Your task to perform on an android device: Open Reddit.com Image 0: 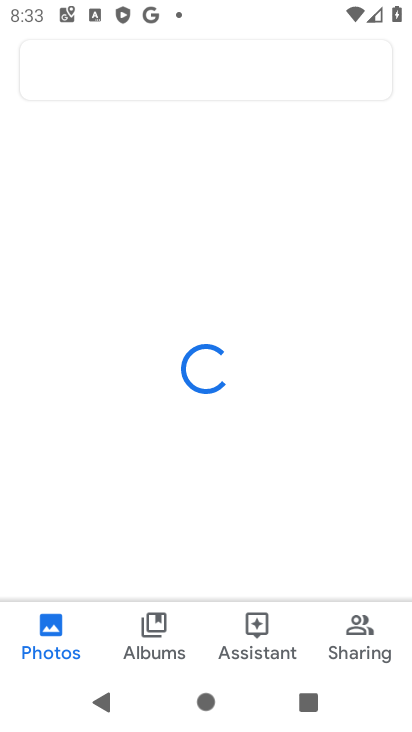
Step 0: press home button
Your task to perform on an android device: Open Reddit.com Image 1: 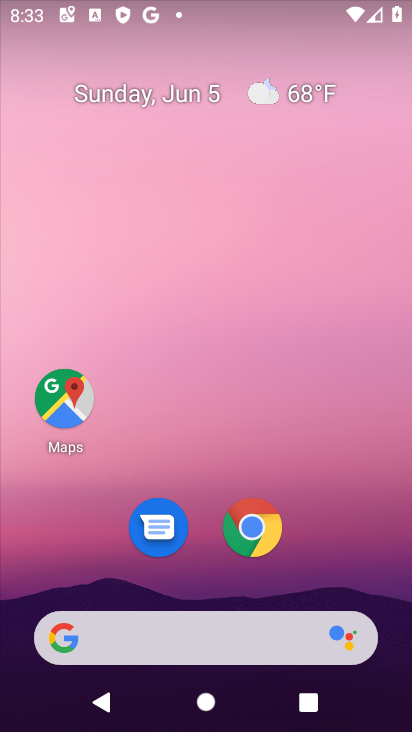
Step 1: click (233, 541)
Your task to perform on an android device: Open Reddit.com Image 2: 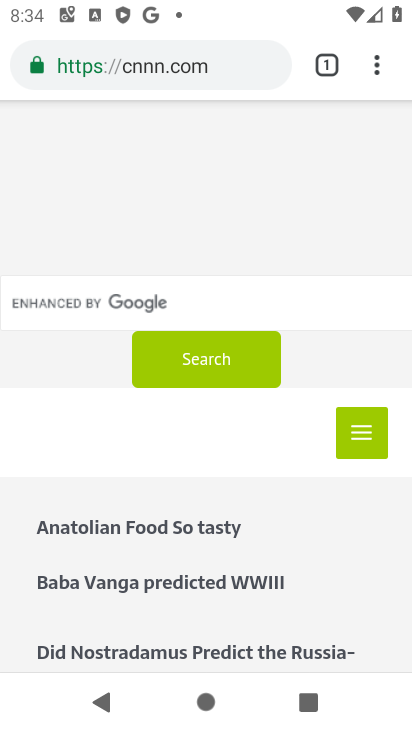
Step 2: click (233, 541)
Your task to perform on an android device: Open Reddit.com Image 3: 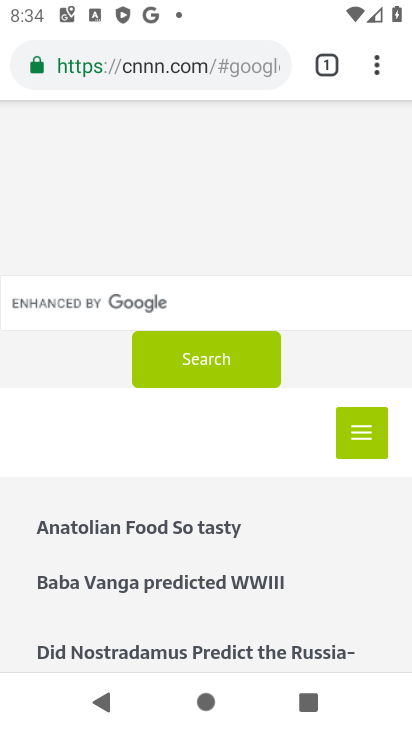
Step 3: click (212, 53)
Your task to perform on an android device: Open Reddit.com Image 4: 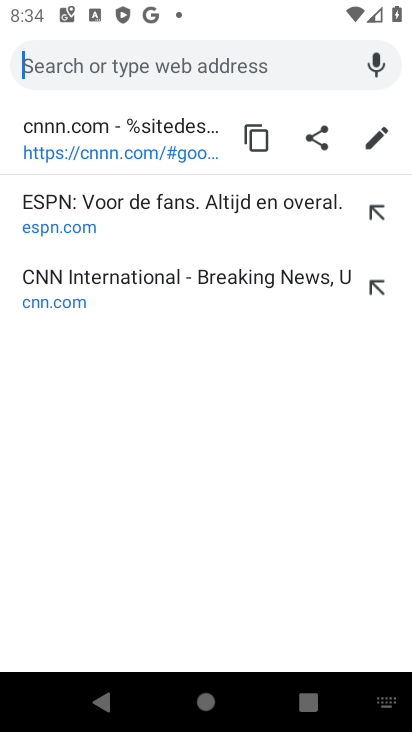
Step 4: type "reddit"
Your task to perform on an android device: Open Reddit.com Image 5: 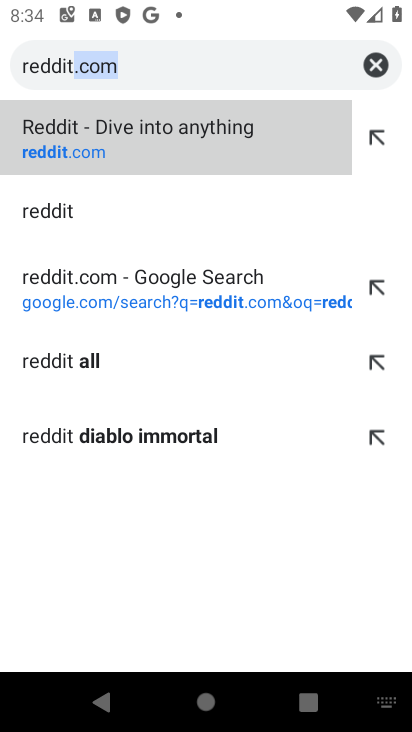
Step 5: click (120, 124)
Your task to perform on an android device: Open Reddit.com Image 6: 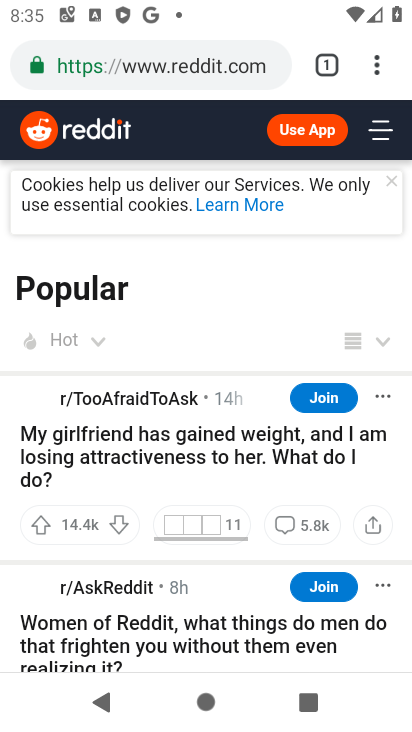
Step 6: task complete